Your task to perform on an android device: Open the stopwatch Image 0: 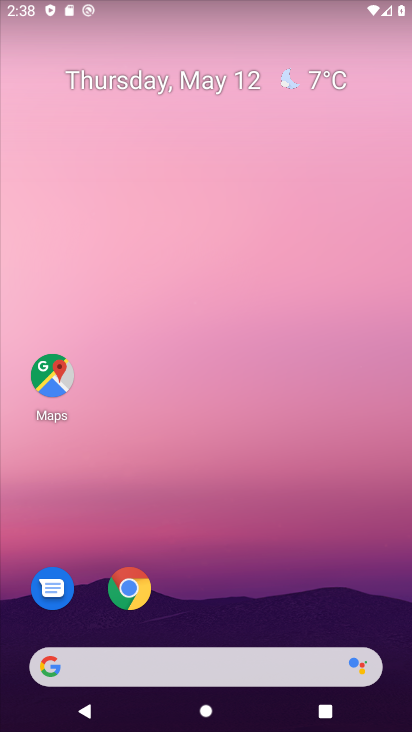
Step 0: drag from (238, 564) to (258, 92)
Your task to perform on an android device: Open the stopwatch Image 1: 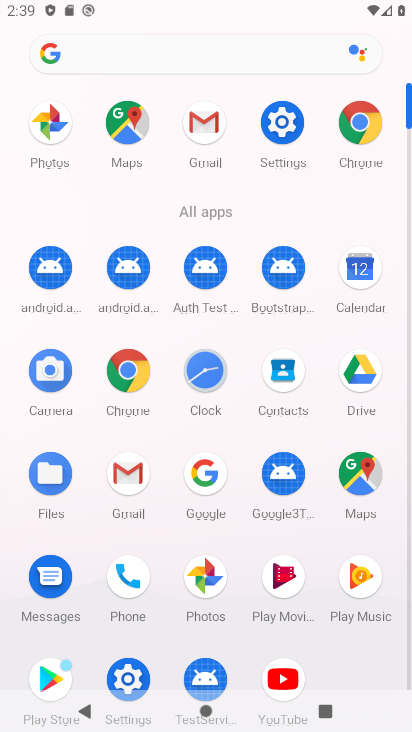
Step 1: click (221, 370)
Your task to perform on an android device: Open the stopwatch Image 2: 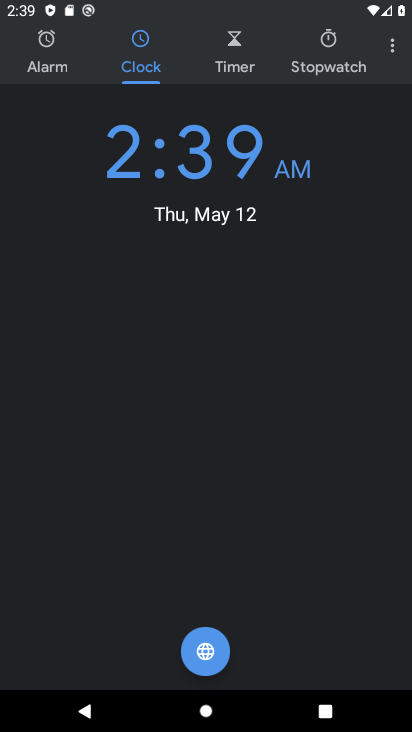
Step 2: click (331, 73)
Your task to perform on an android device: Open the stopwatch Image 3: 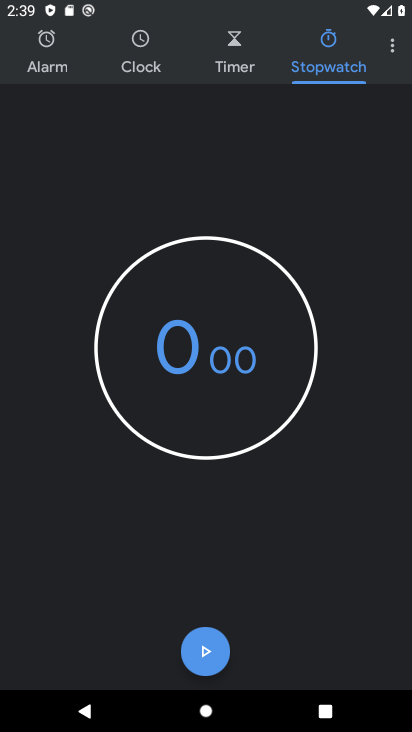
Step 3: task complete